Your task to perform on an android device: install app "Microsoft Outlook" Image 0: 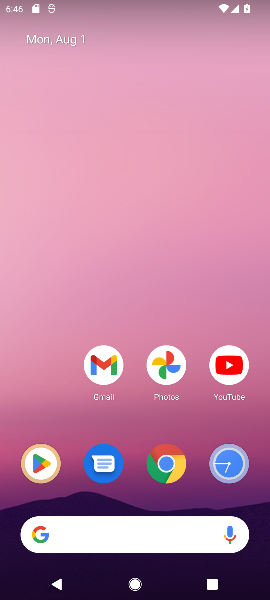
Step 0: click (98, 539)
Your task to perform on an android device: install app "Microsoft Outlook" Image 1: 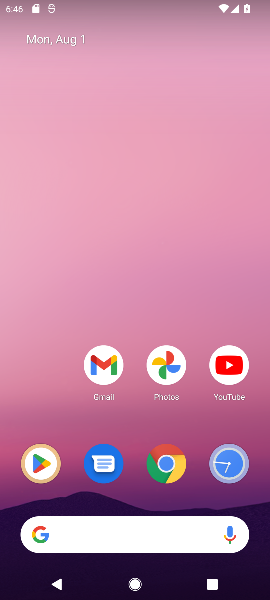
Step 1: click (98, 539)
Your task to perform on an android device: install app "Microsoft Outlook" Image 2: 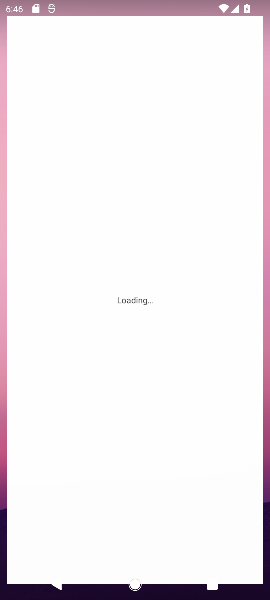
Step 2: click (98, 539)
Your task to perform on an android device: install app "Microsoft Outlook" Image 3: 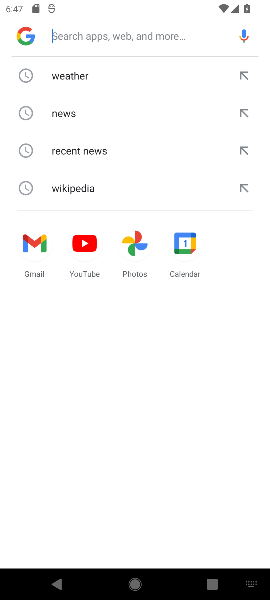
Step 3: type "microsoft outlook"
Your task to perform on an android device: install app "Microsoft Outlook" Image 4: 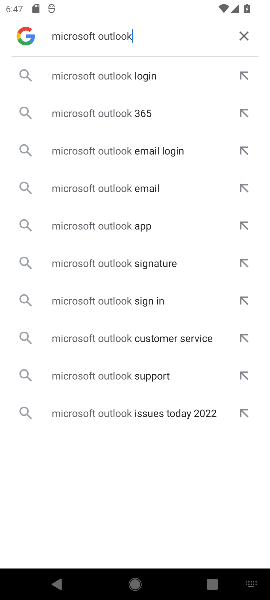
Step 4: click (106, 89)
Your task to perform on an android device: install app "Microsoft Outlook" Image 5: 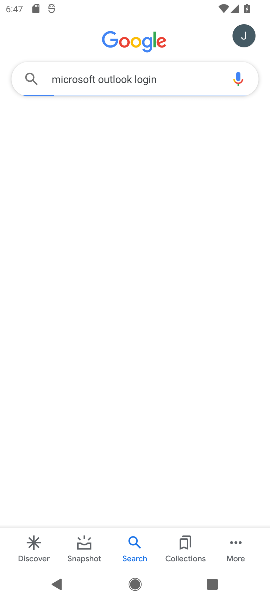
Step 5: click (106, 89)
Your task to perform on an android device: install app "Microsoft Outlook" Image 6: 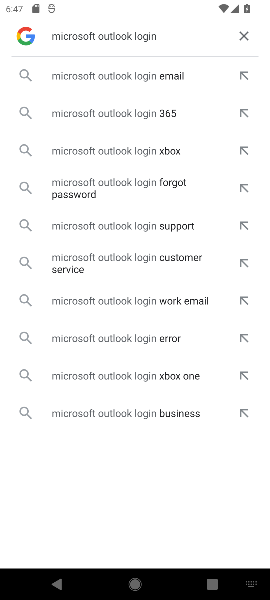
Step 6: click (129, 69)
Your task to perform on an android device: install app "Microsoft Outlook" Image 7: 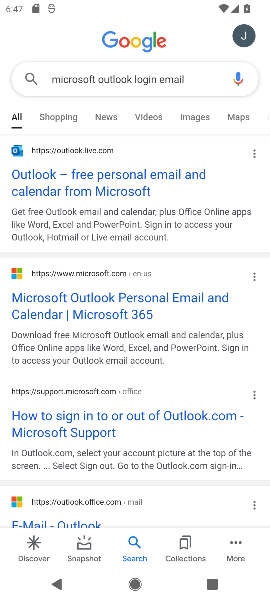
Step 7: click (202, 192)
Your task to perform on an android device: install app "Microsoft Outlook" Image 8: 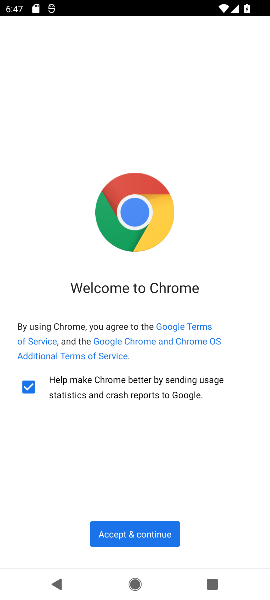
Step 8: task complete